Your task to perform on an android device: Open display settings Image 0: 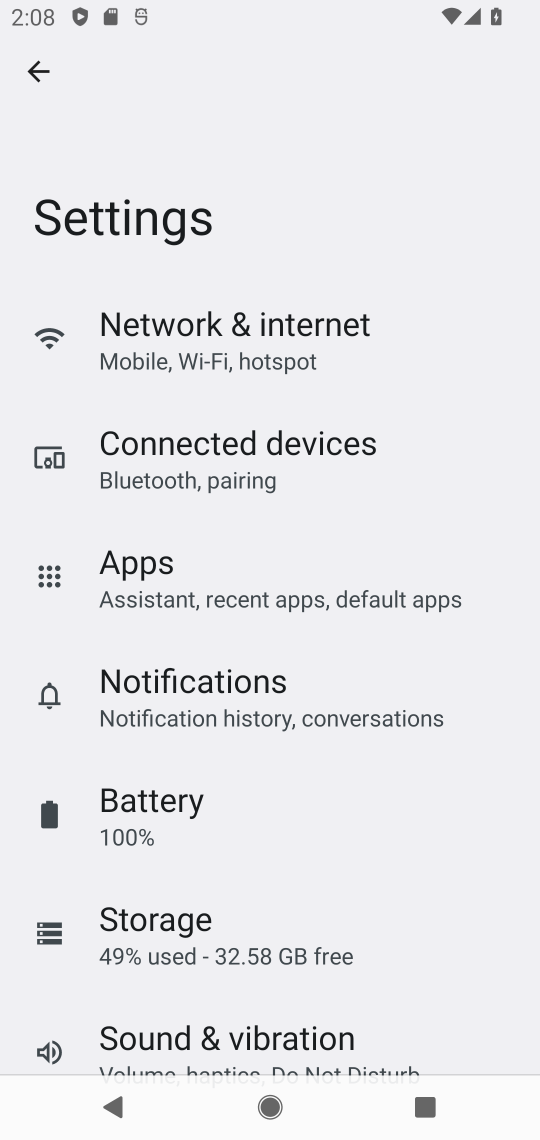
Step 0: press home button
Your task to perform on an android device: Open display settings Image 1: 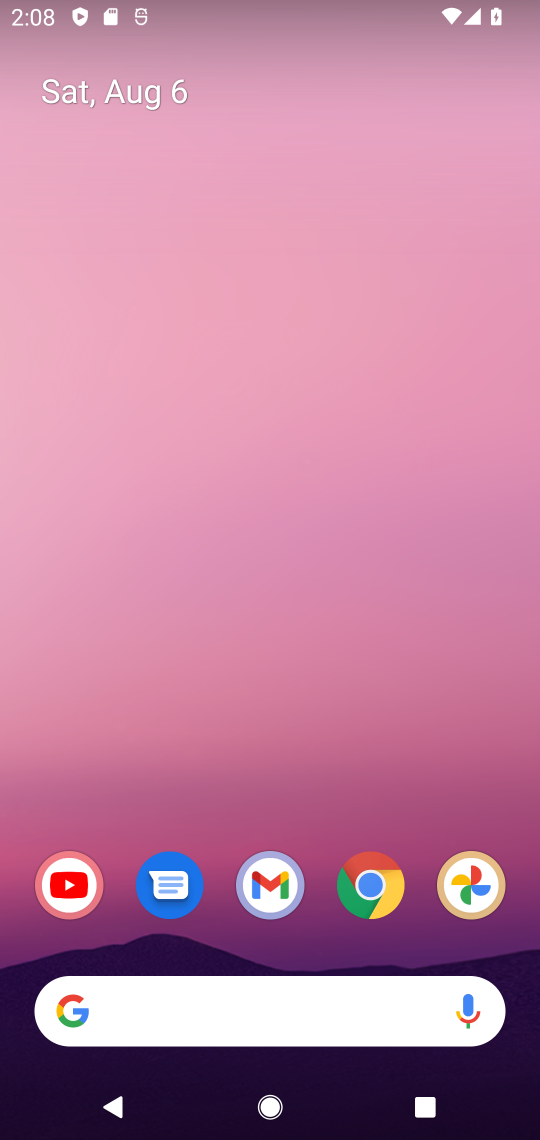
Step 1: drag from (411, 953) to (179, 40)
Your task to perform on an android device: Open display settings Image 2: 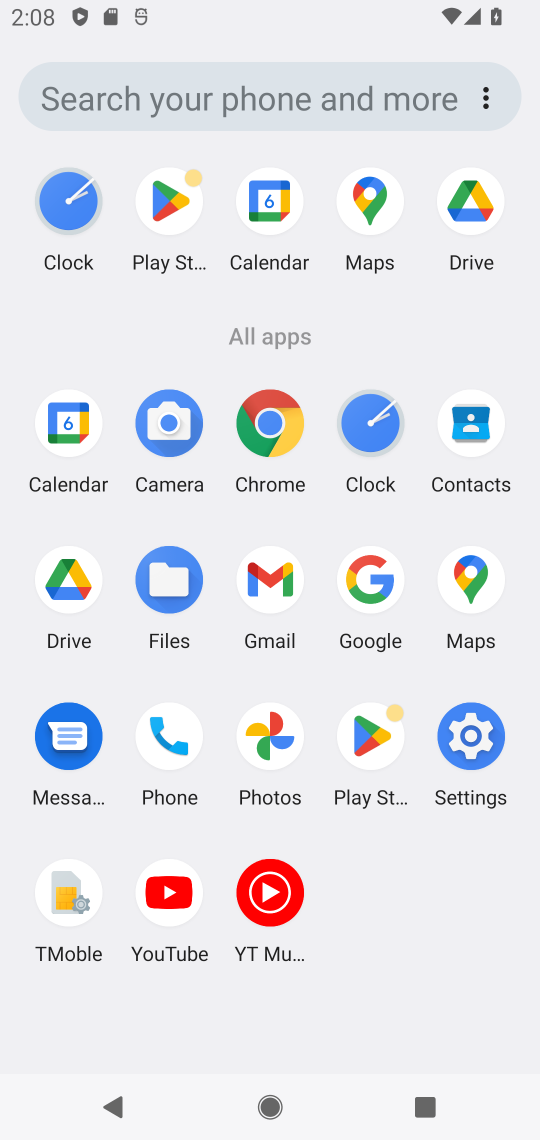
Step 2: click (479, 760)
Your task to perform on an android device: Open display settings Image 3: 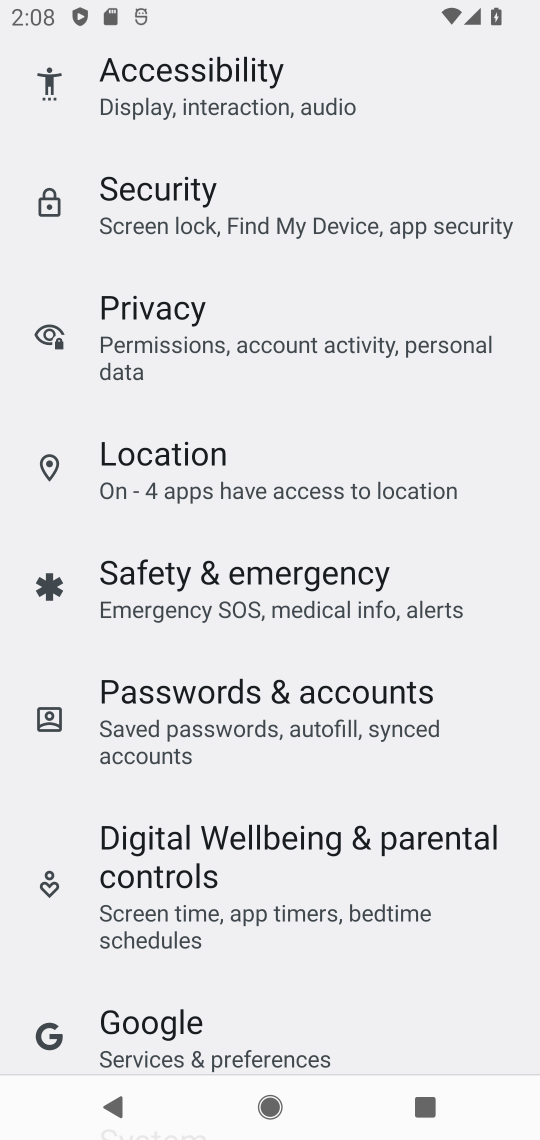
Step 3: drag from (259, 278) to (294, 1105)
Your task to perform on an android device: Open display settings Image 4: 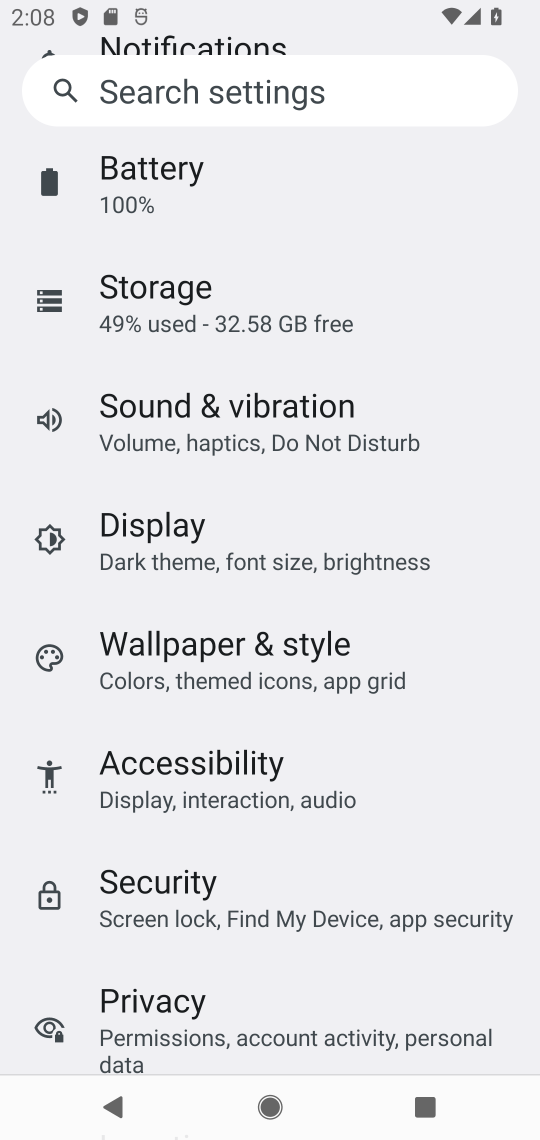
Step 4: click (171, 563)
Your task to perform on an android device: Open display settings Image 5: 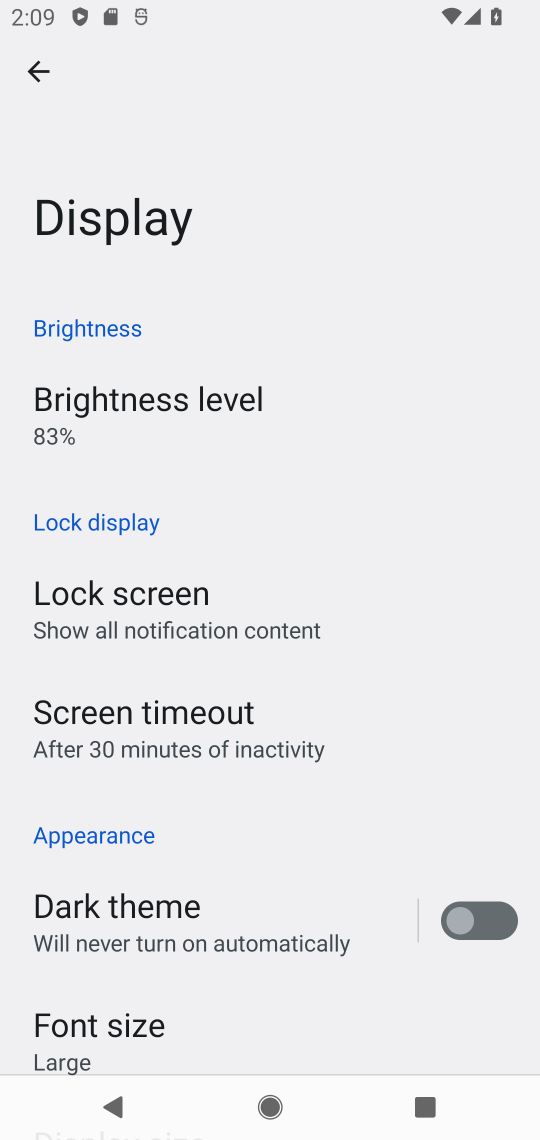
Step 5: task complete